Your task to perform on an android device: Open calendar and show me the second week of next month Image 0: 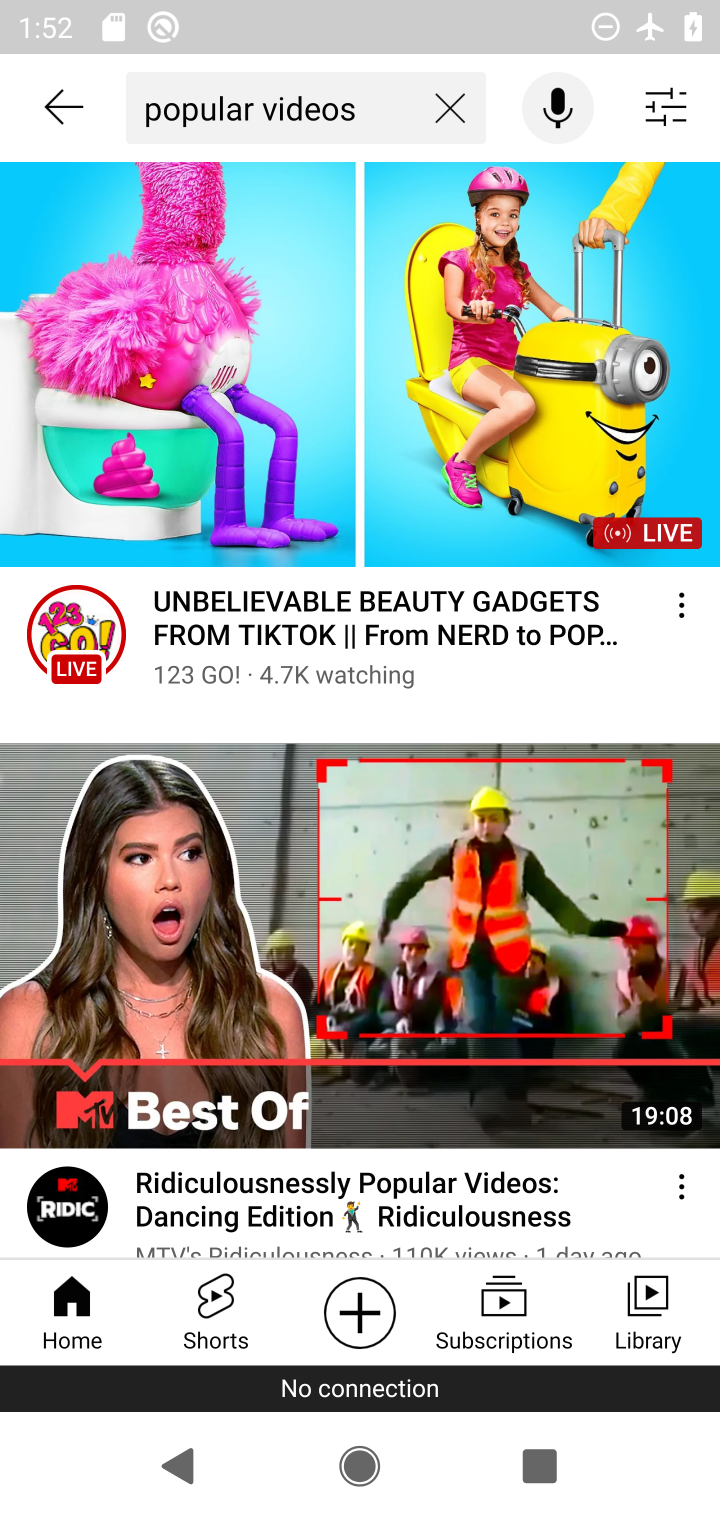
Step 0: press home button
Your task to perform on an android device: Open calendar and show me the second week of next month Image 1: 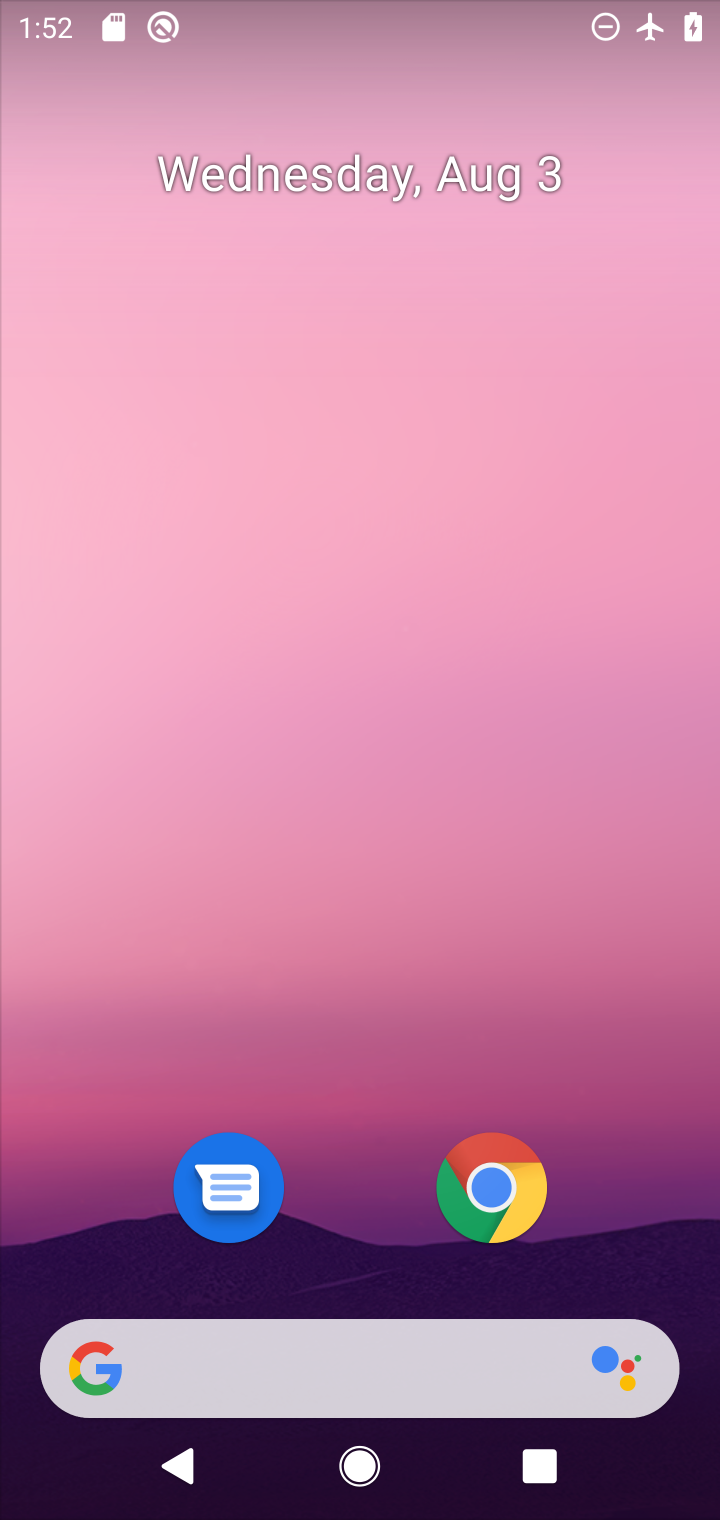
Step 1: drag from (362, 779) to (385, 27)
Your task to perform on an android device: Open calendar and show me the second week of next month Image 2: 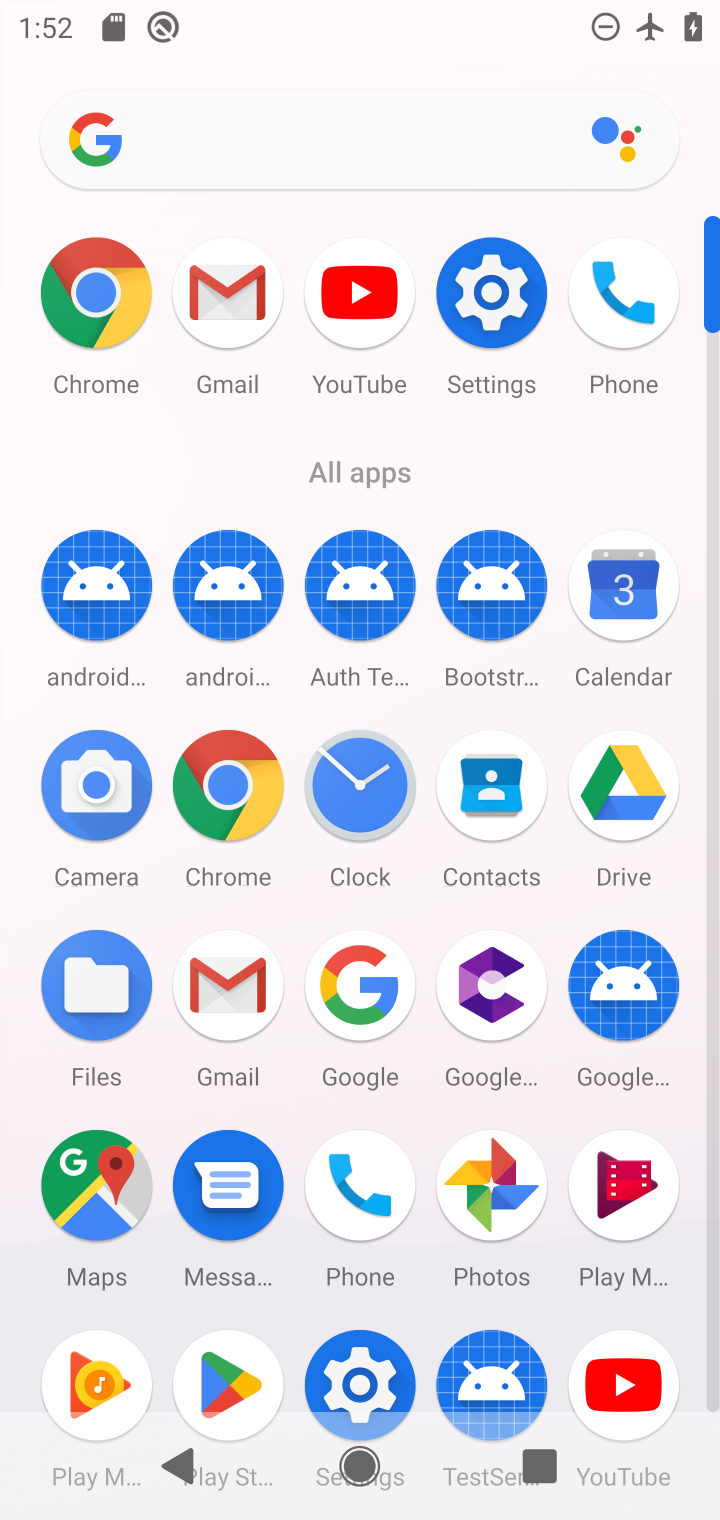
Step 2: click (617, 587)
Your task to perform on an android device: Open calendar and show me the second week of next month Image 3: 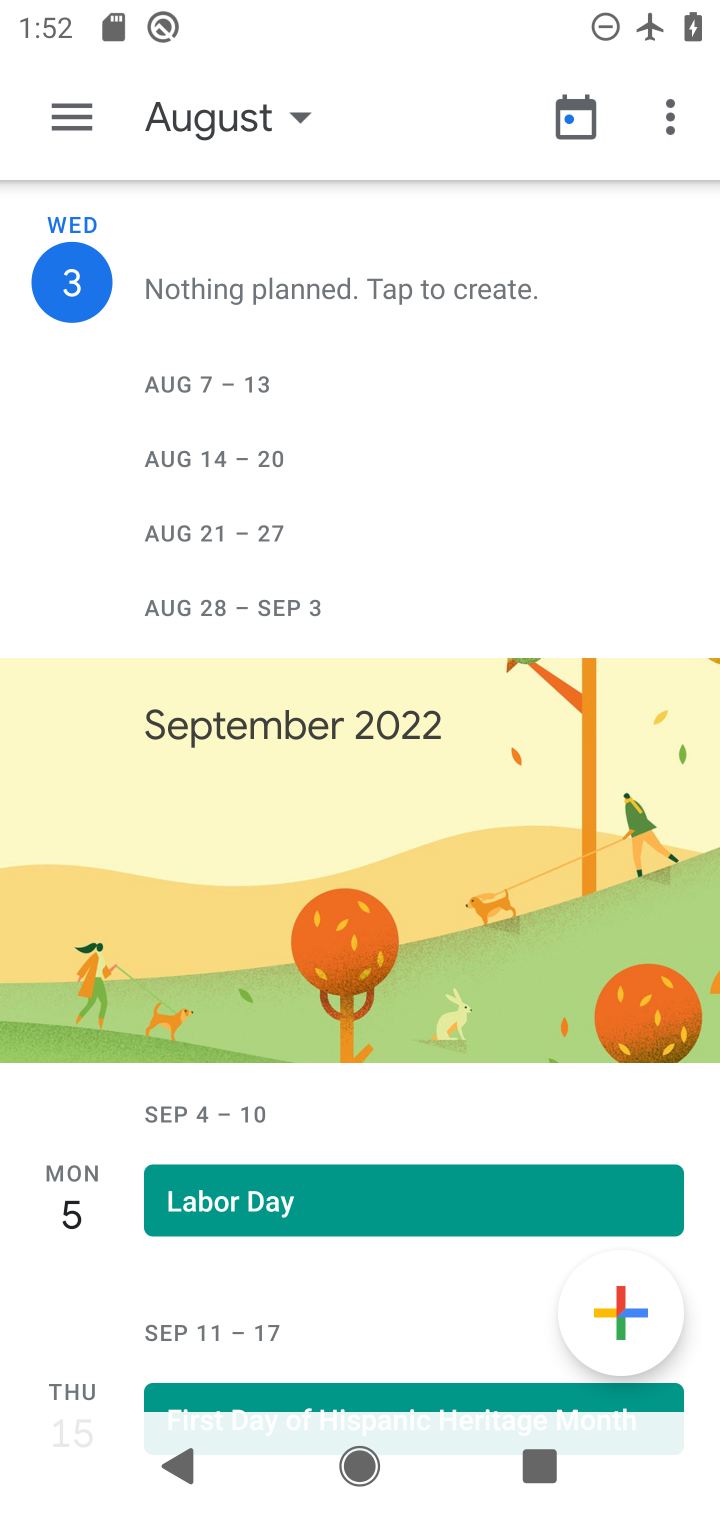
Step 3: click (85, 102)
Your task to perform on an android device: Open calendar and show me the second week of next month Image 4: 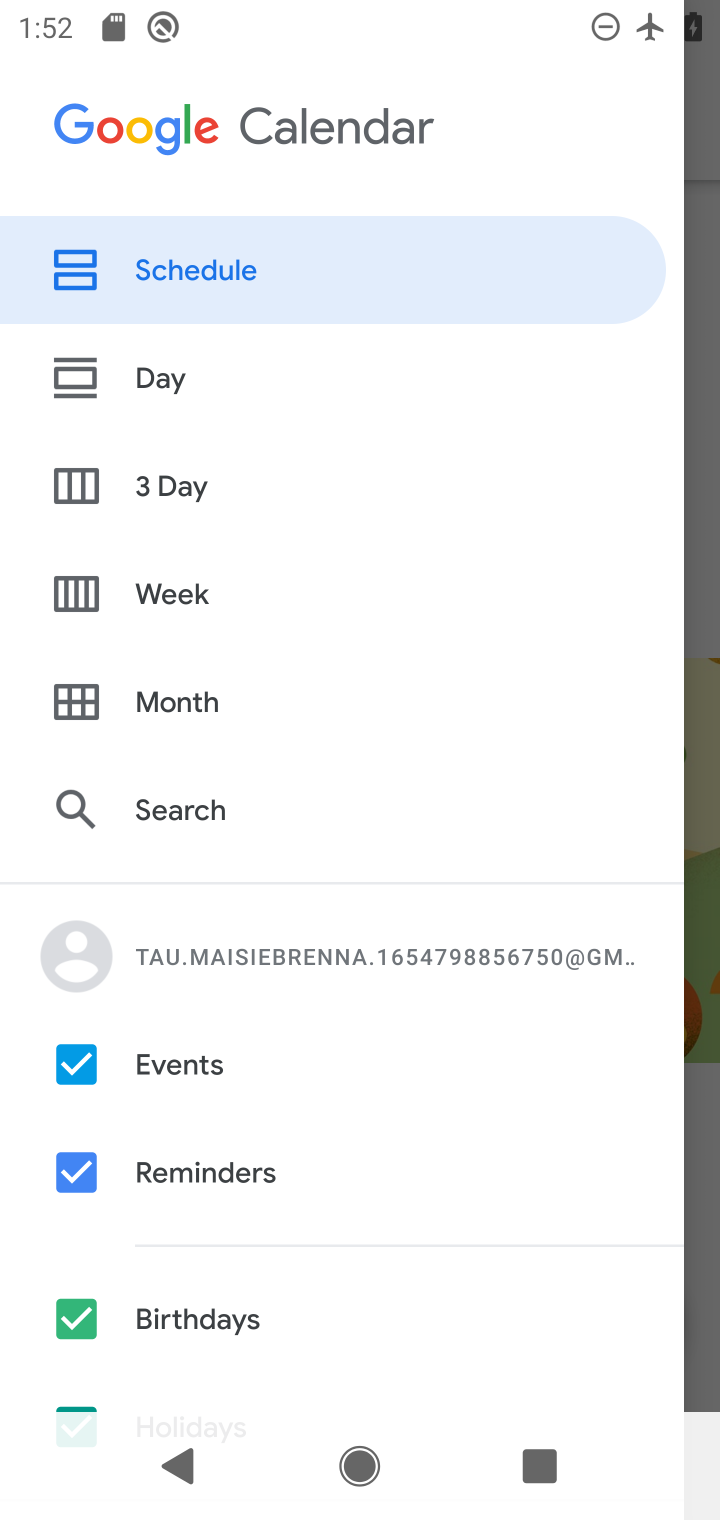
Step 4: click (73, 691)
Your task to perform on an android device: Open calendar and show me the second week of next month Image 5: 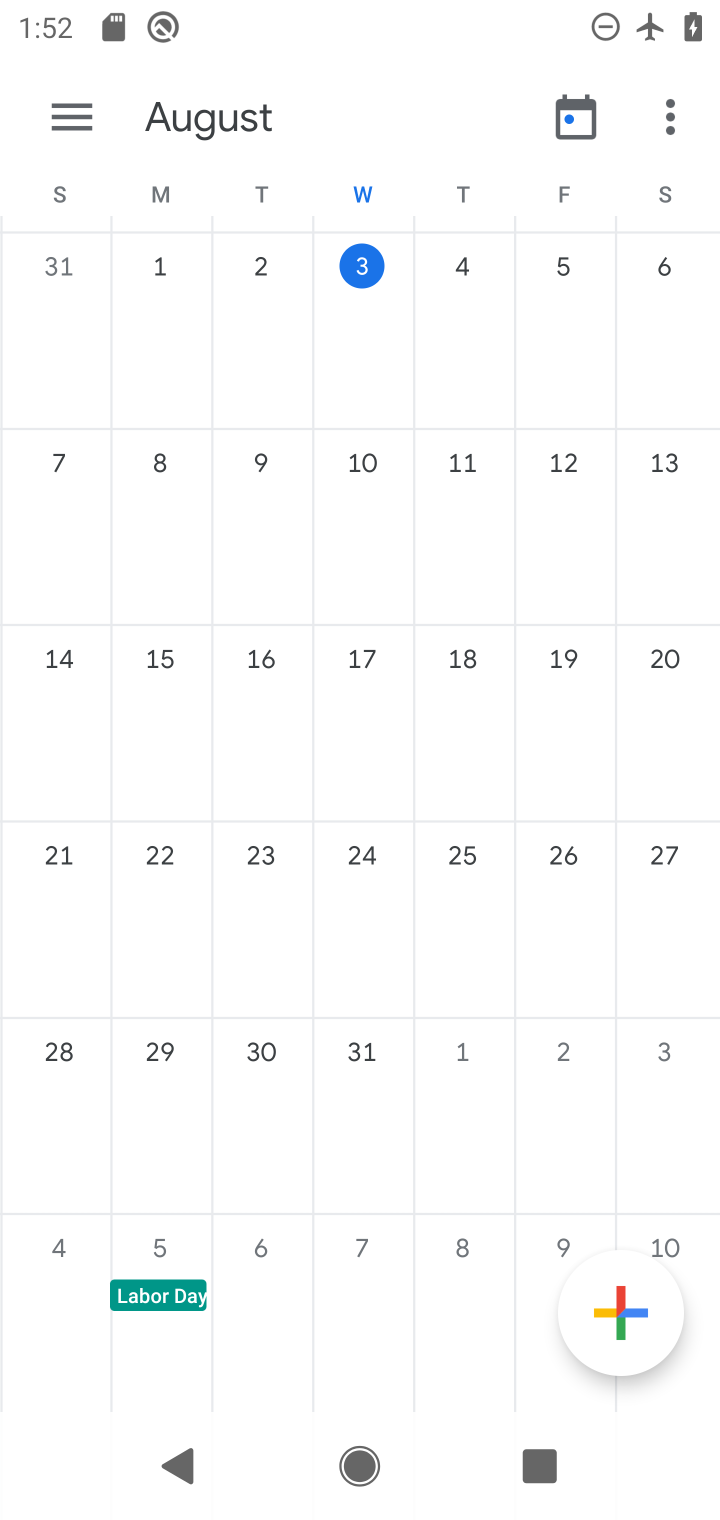
Step 5: drag from (627, 922) to (3, 737)
Your task to perform on an android device: Open calendar and show me the second week of next month Image 6: 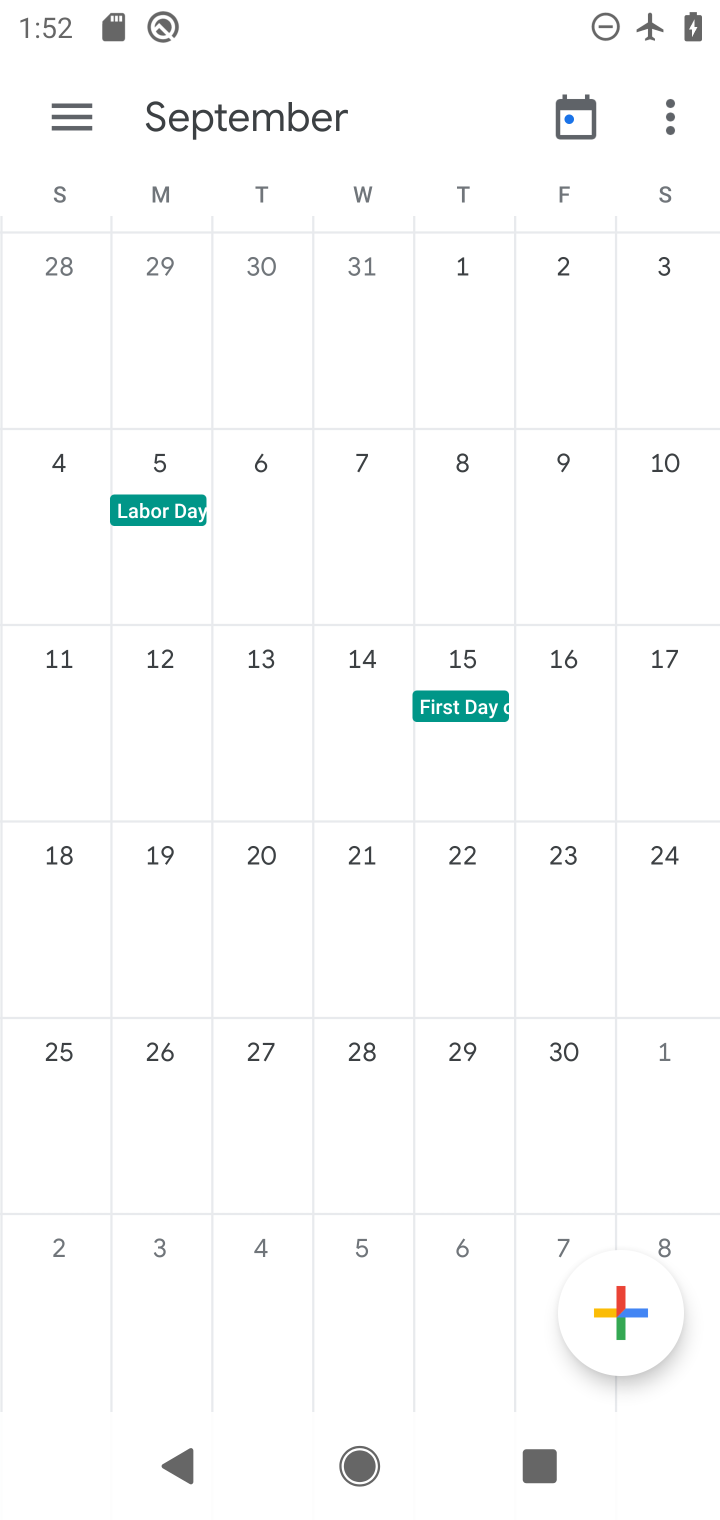
Step 6: click (63, 657)
Your task to perform on an android device: Open calendar and show me the second week of next month Image 7: 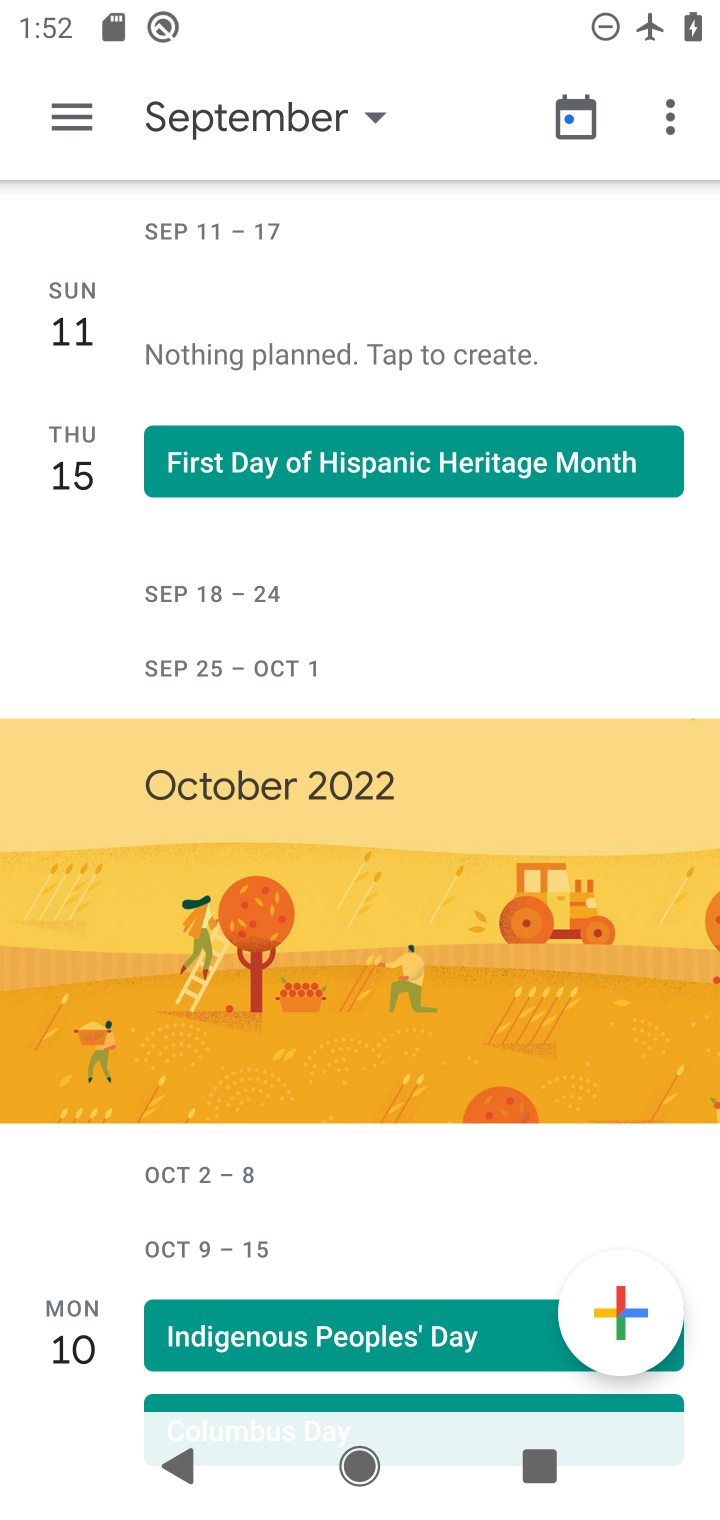
Step 7: click (75, 116)
Your task to perform on an android device: Open calendar and show me the second week of next month Image 8: 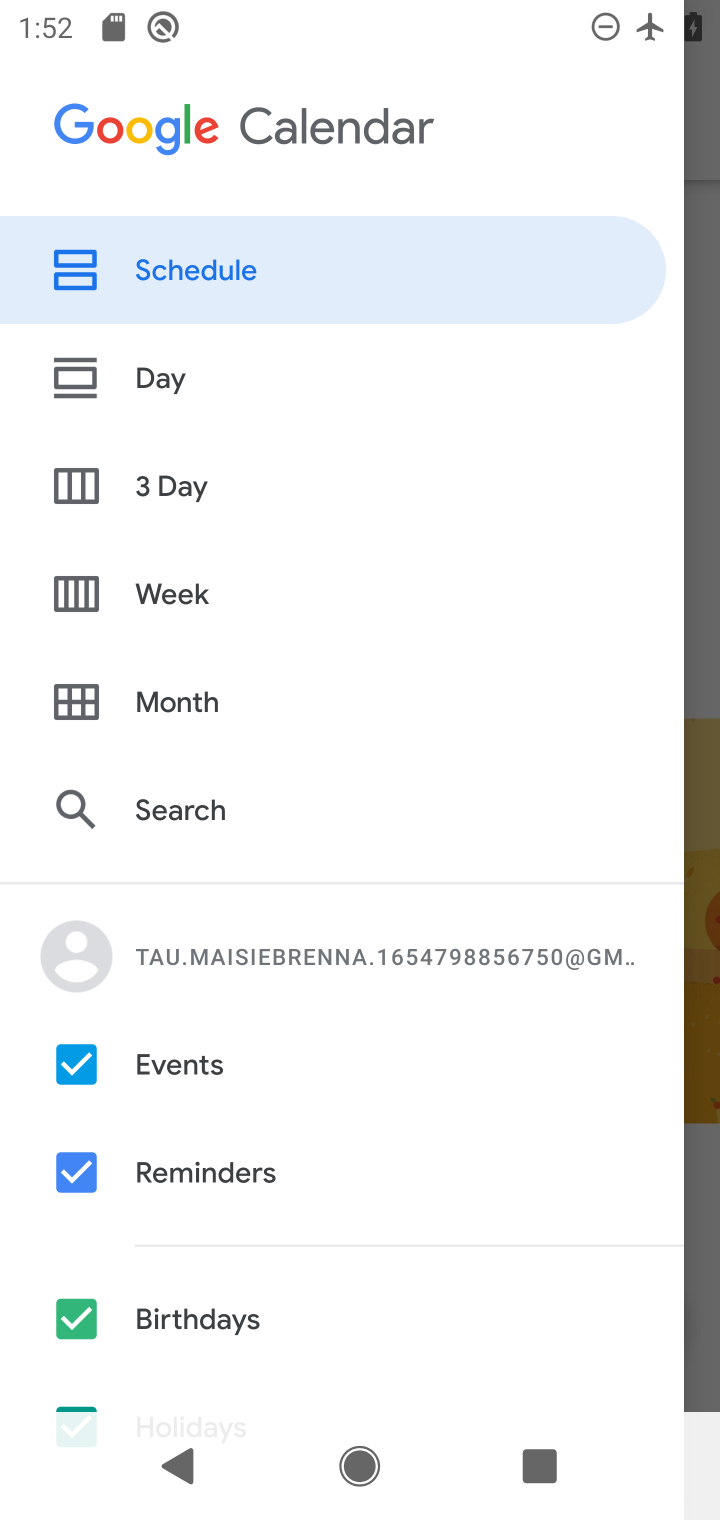
Step 8: click (81, 592)
Your task to perform on an android device: Open calendar and show me the second week of next month Image 9: 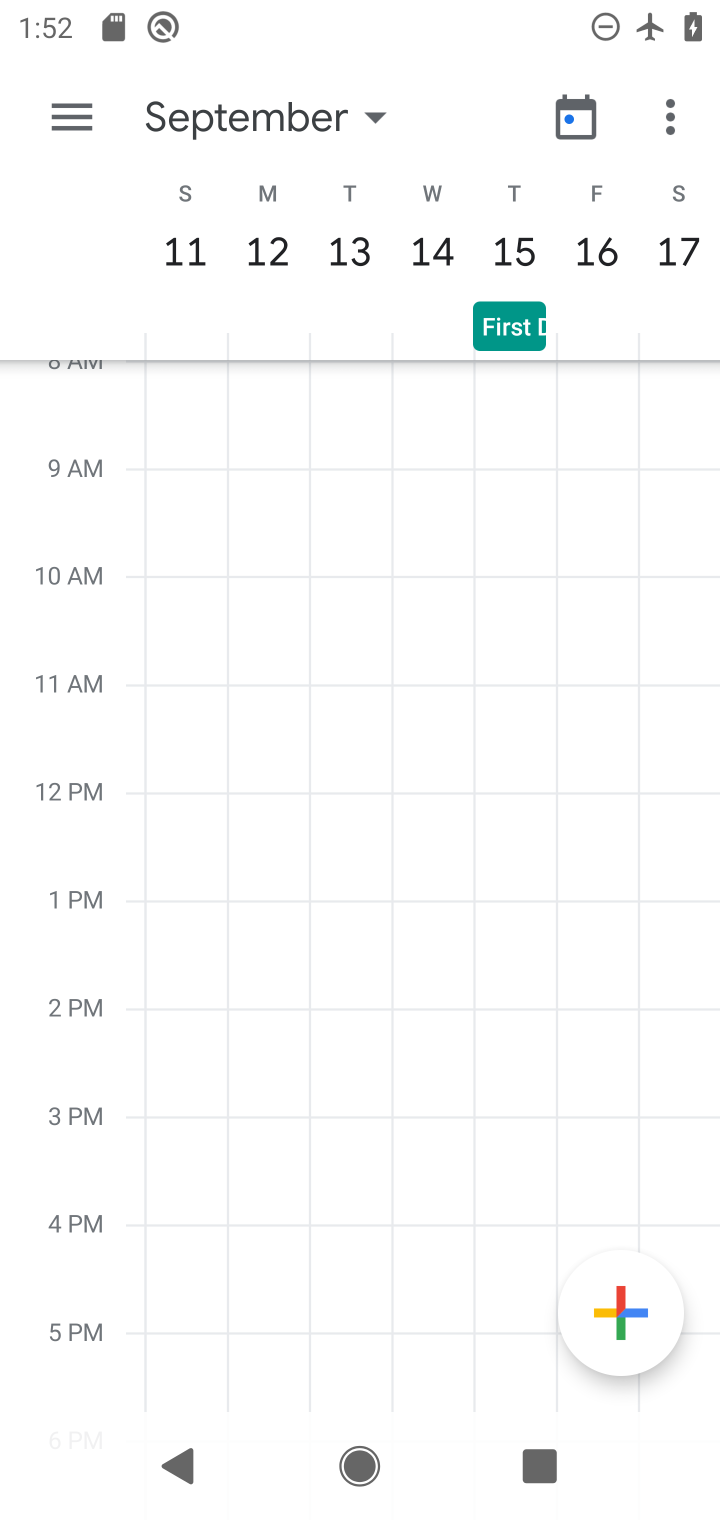
Step 9: task complete